Your task to perform on an android device: turn on javascript in the chrome app Image 0: 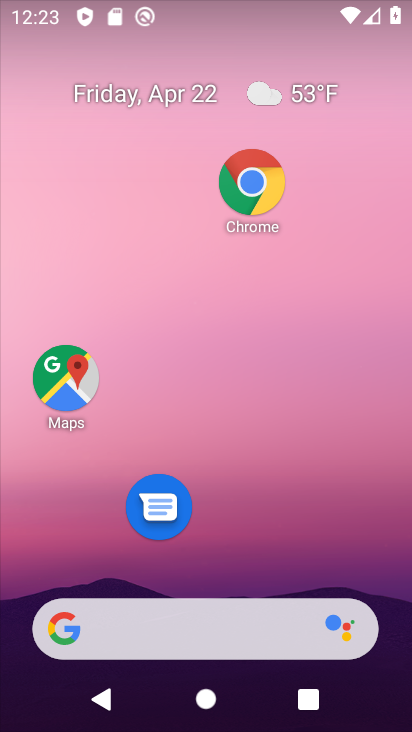
Step 0: click (249, 219)
Your task to perform on an android device: turn on javascript in the chrome app Image 1: 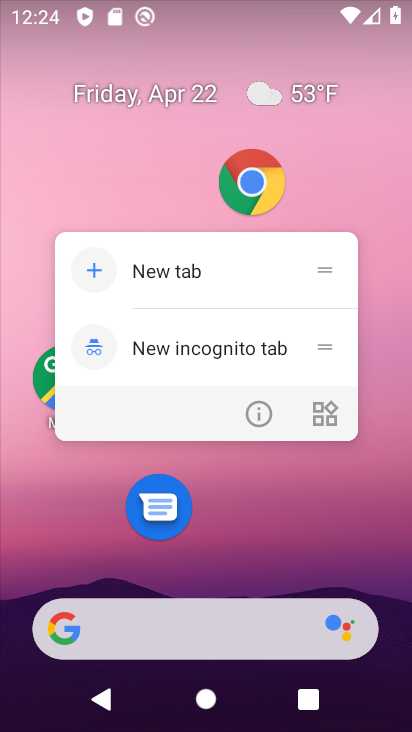
Step 1: click (241, 193)
Your task to perform on an android device: turn on javascript in the chrome app Image 2: 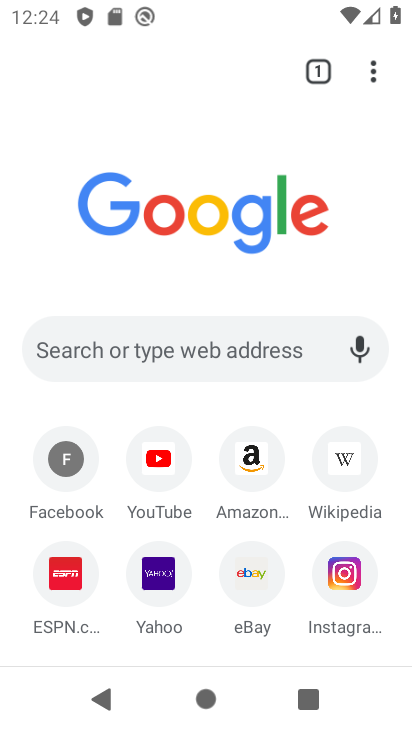
Step 2: drag from (381, 58) to (121, 507)
Your task to perform on an android device: turn on javascript in the chrome app Image 3: 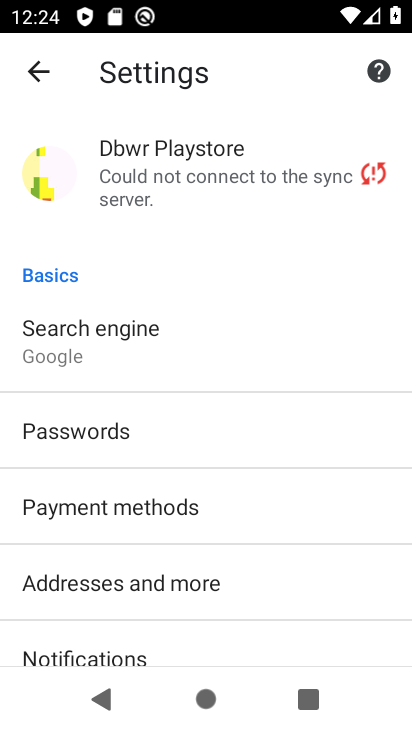
Step 3: drag from (101, 559) to (0, 80)
Your task to perform on an android device: turn on javascript in the chrome app Image 4: 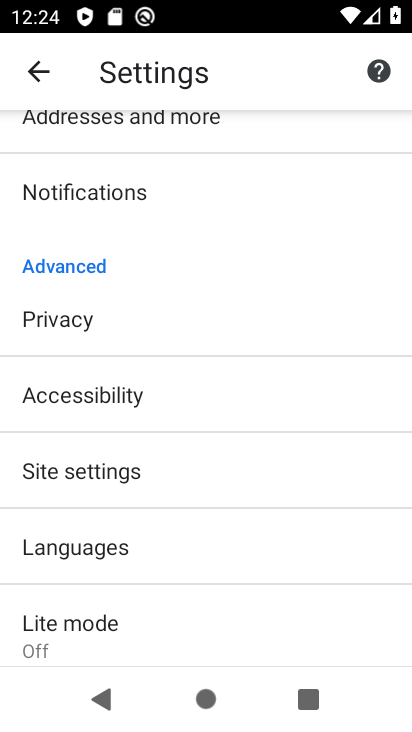
Step 4: drag from (109, 458) to (171, 329)
Your task to perform on an android device: turn on javascript in the chrome app Image 5: 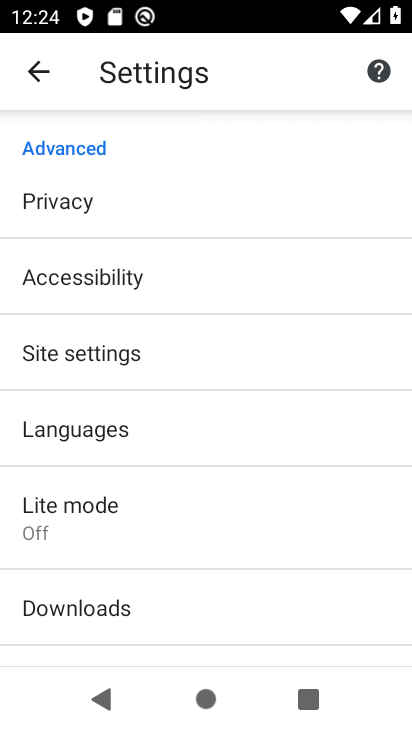
Step 5: click (103, 363)
Your task to perform on an android device: turn on javascript in the chrome app Image 6: 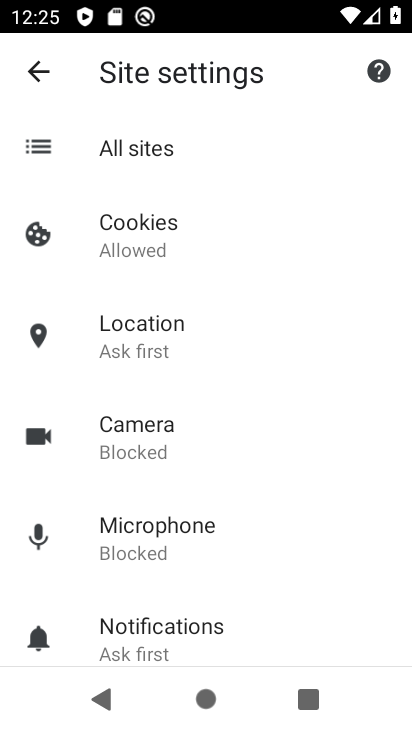
Step 6: drag from (185, 633) to (167, 189)
Your task to perform on an android device: turn on javascript in the chrome app Image 7: 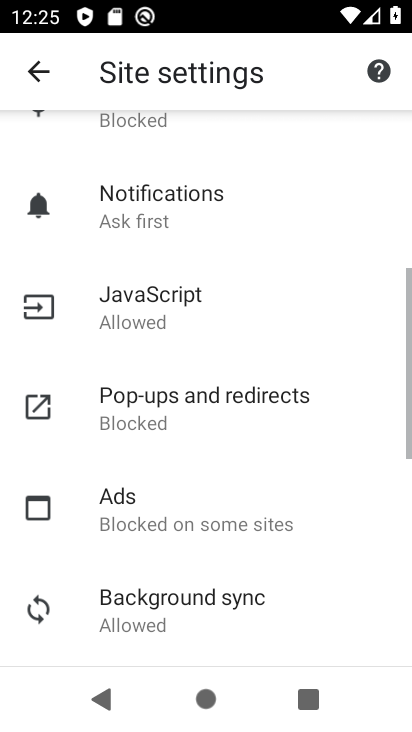
Step 7: click (172, 317)
Your task to perform on an android device: turn on javascript in the chrome app Image 8: 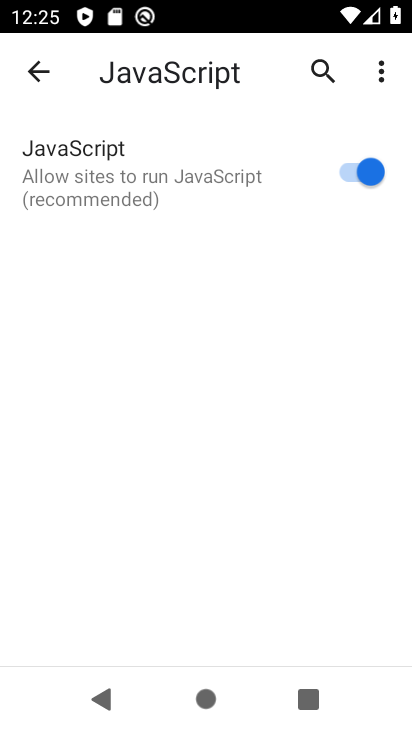
Step 8: task complete